Your task to perform on an android device: Go to Reddit.com Image 0: 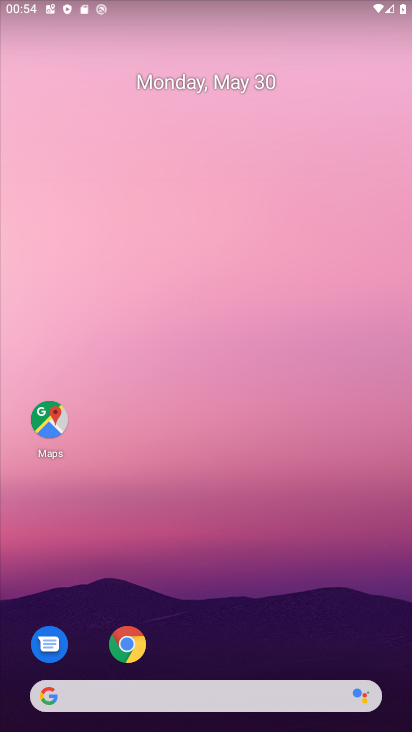
Step 0: drag from (314, 553) to (309, 143)
Your task to perform on an android device: Go to Reddit.com Image 1: 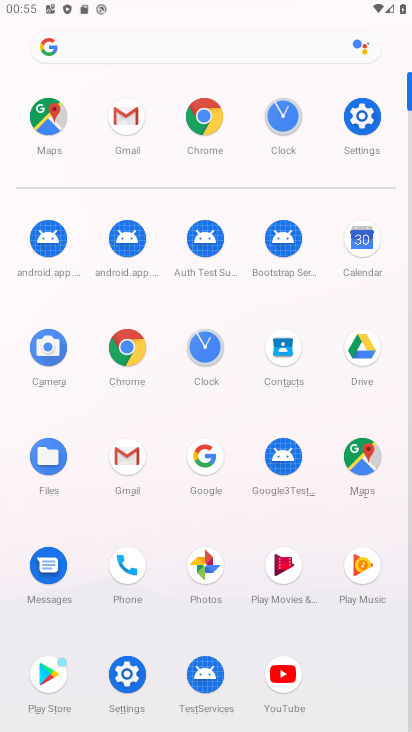
Step 1: click (217, 126)
Your task to perform on an android device: Go to Reddit.com Image 2: 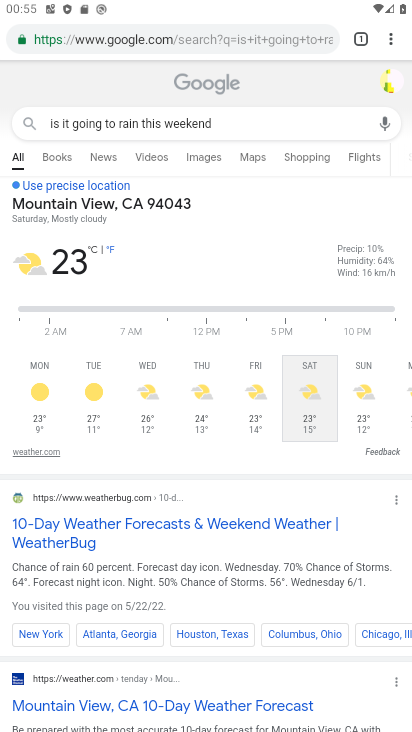
Step 2: click (360, 39)
Your task to perform on an android device: Go to Reddit.com Image 3: 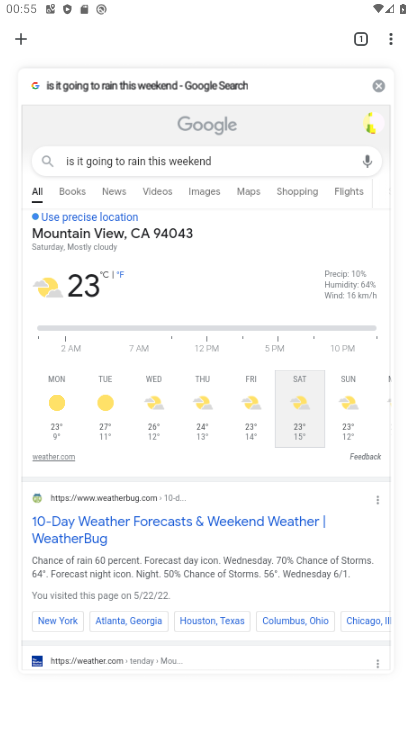
Step 3: click (24, 45)
Your task to perform on an android device: Go to Reddit.com Image 4: 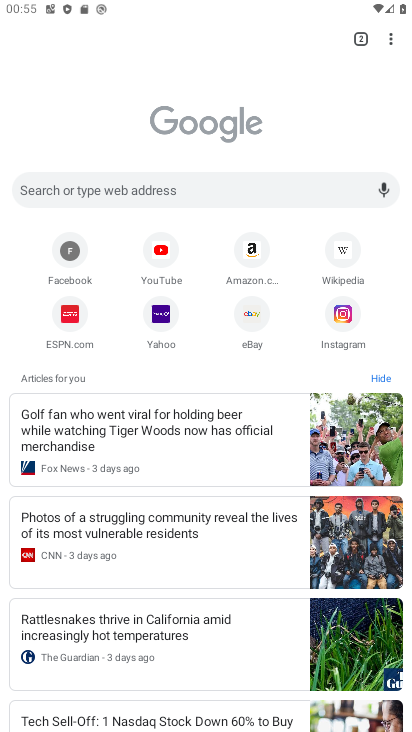
Step 4: click (141, 190)
Your task to perform on an android device: Go to Reddit.com Image 5: 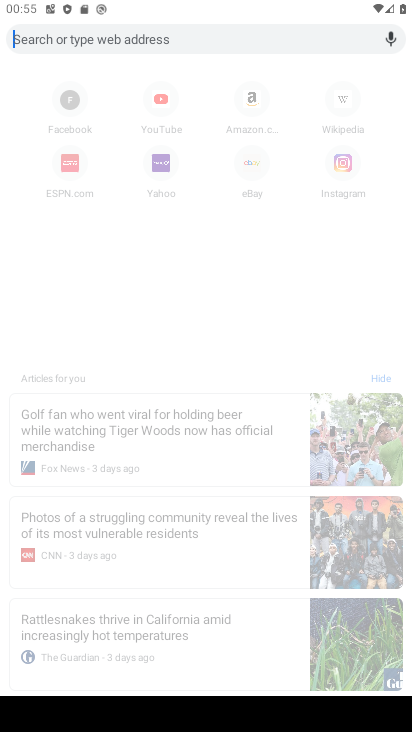
Step 5: type "reddit.com"
Your task to perform on an android device: Go to Reddit.com Image 6: 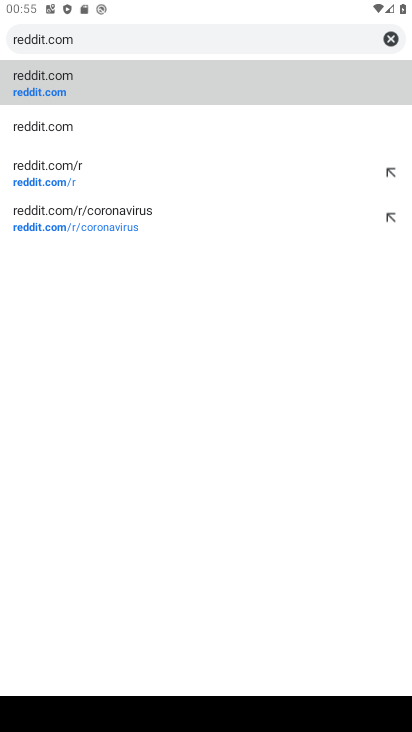
Step 6: click (56, 84)
Your task to perform on an android device: Go to Reddit.com Image 7: 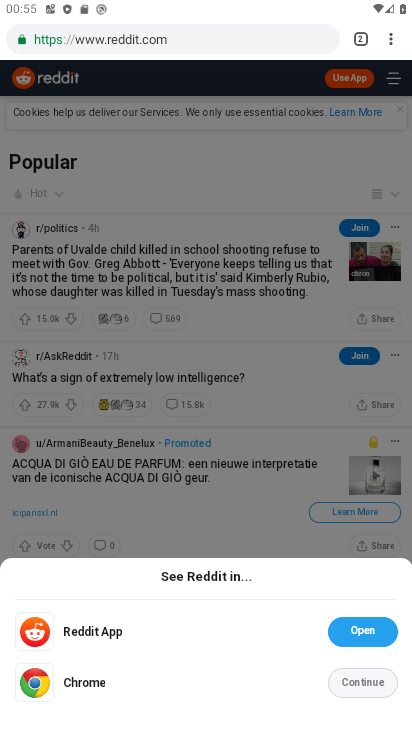
Step 7: task complete